Your task to perform on an android device: Open calendar and show me the first week of next month Image 0: 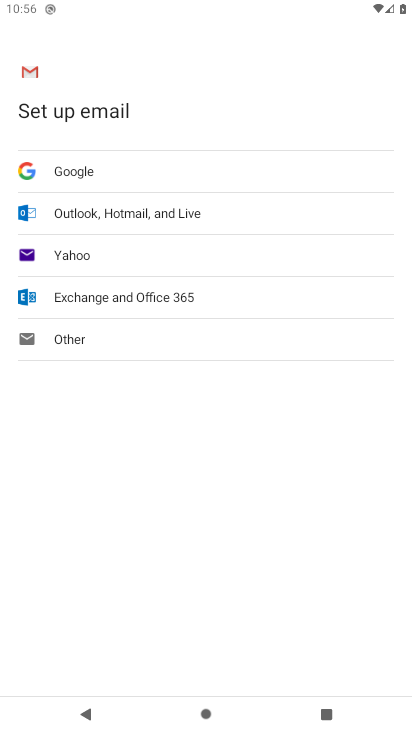
Step 0: press home button
Your task to perform on an android device: Open calendar and show me the first week of next month Image 1: 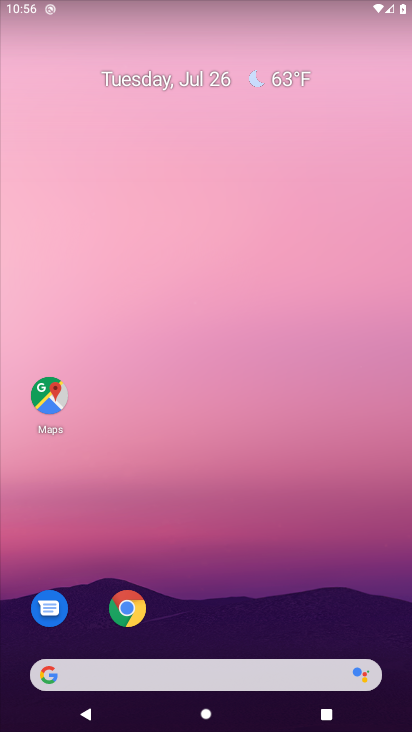
Step 1: drag from (324, 585) to (281, 88)
Your task to perform on an android device: Open calendar and show me the first week of next month Image 2: 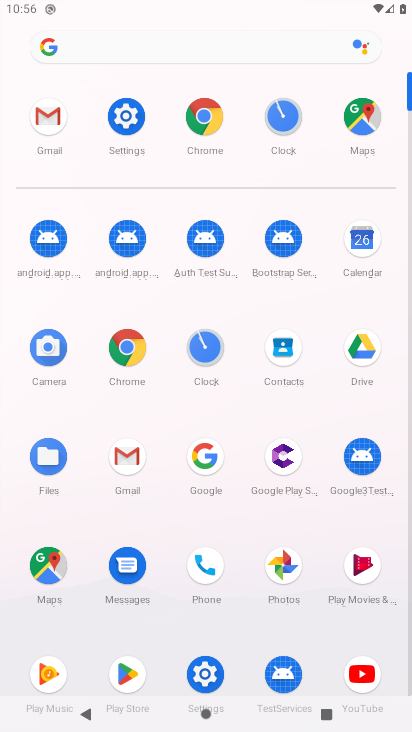
Step 2: click (365, 236)
Your task to perform on an android device: Open calendar and show me the first week of next month Image 3: 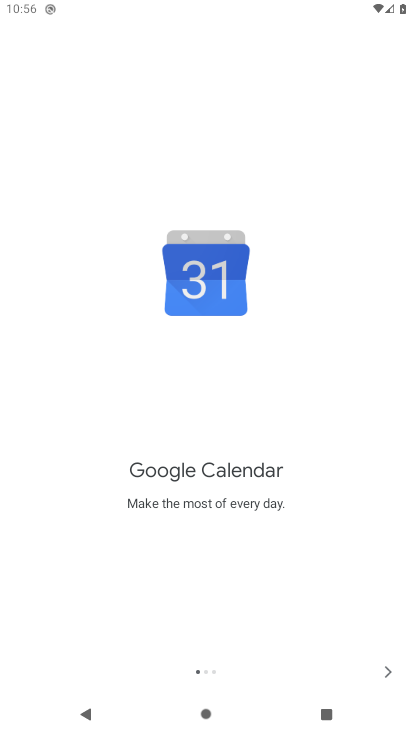
Step 3: click (382, 675)
Your task to perform on an android device: Open calendar and show me the first week of next month Image 4: 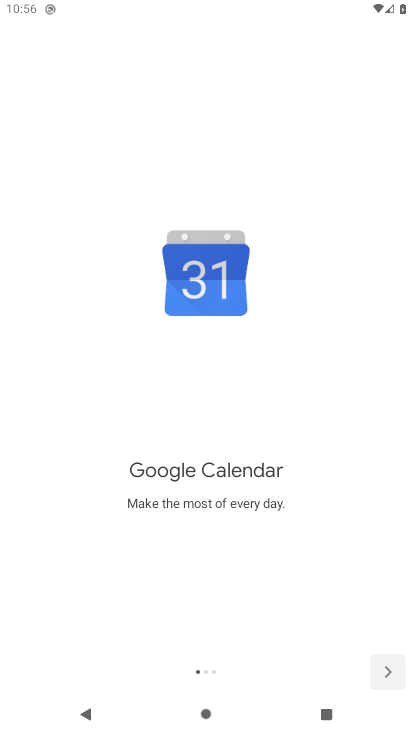
Step 4: click (382, 675)
Your task to perform on an android device: Open calendar and show me the first week of next month Image 5: 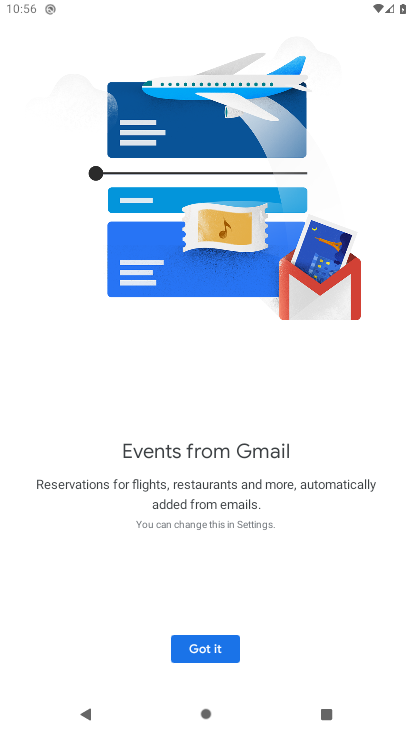
Step 5: click (382, 675)
Your task to perform on an android device: Open calendar and show me the first week of next month Image 6: 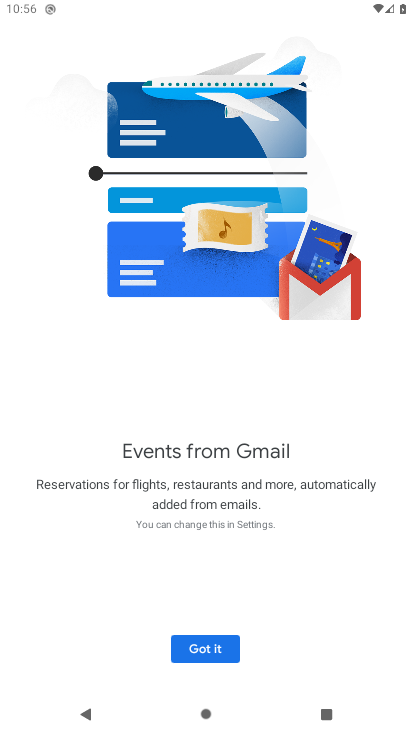
Step 6: click (216, 647)
Your task to perform on an android device: Open calendar and show me the first week of next month Image 7: 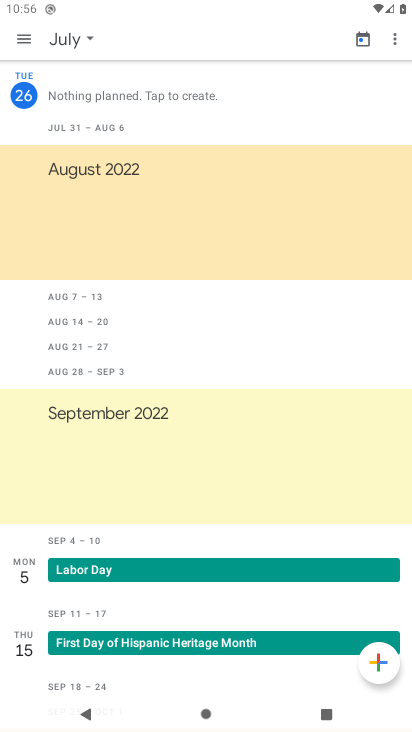
Step 7: click (22, 43)
Your task to perform on an android device: Open calendar and show me the first week of next month Image 8: 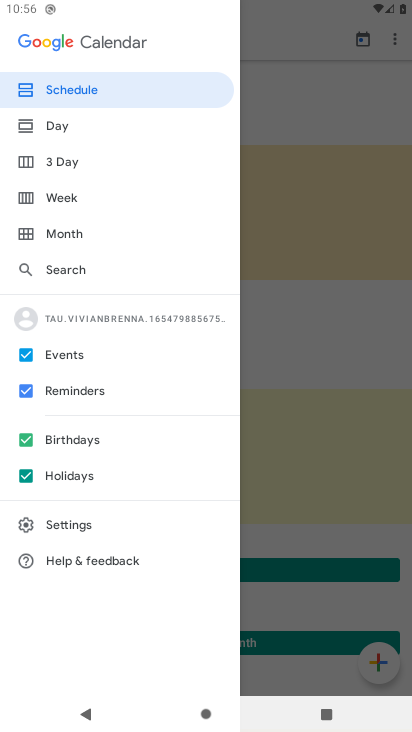
Step 8: click (73, 194)
Your task to perform on an android device: Open calendar and show me the first week of next month Image 9: 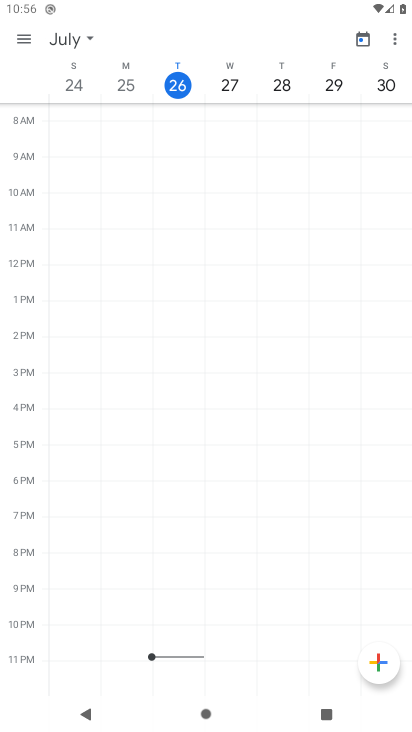
Step 9: task complete